Your task to perform on an android device: Open the phone app and click the voicemail tab. Image 0: 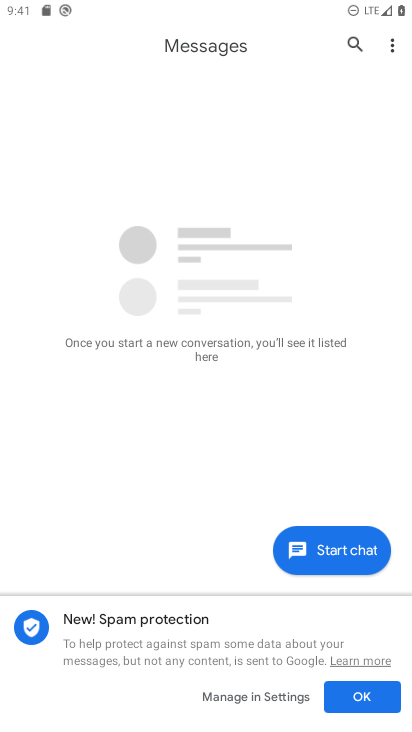
Step 0: press home button
Your task to perform on an android device: Open the phone app and click the voicemail tab. Image 1: 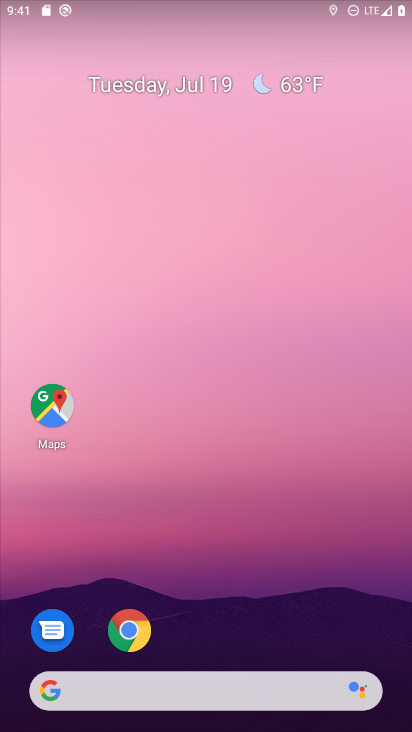
Step 1: drag from (181, 679) to (165, 4)
Your task to perform on an android device: Open the phone app and click the voicemail tab. Image 2: 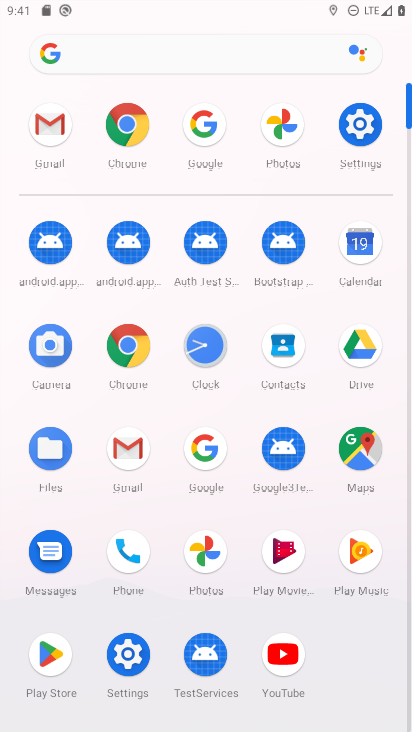
Step 2: click (122, 552)
Your task to perform on an android device: Open the phone app and click the voicemail tab. Image 3: 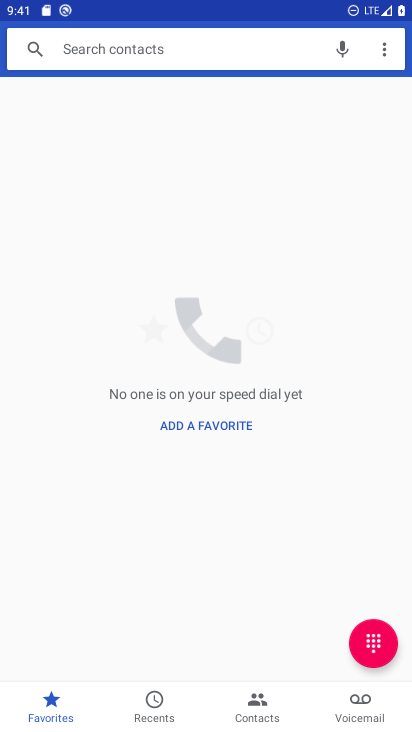
Step 3: click (362, 696)
Your task to perform on an android device: Open the phone app and click the voicemail tab. Image 4: 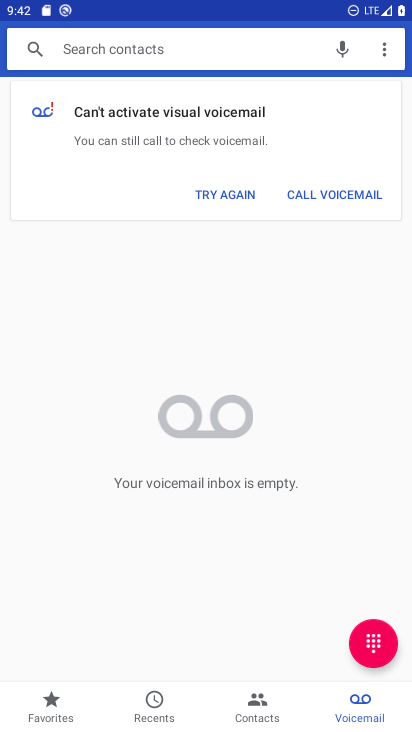
Step 4: task complete